Your task to perform on an android device: set default search engine in the chrome app Image 0: 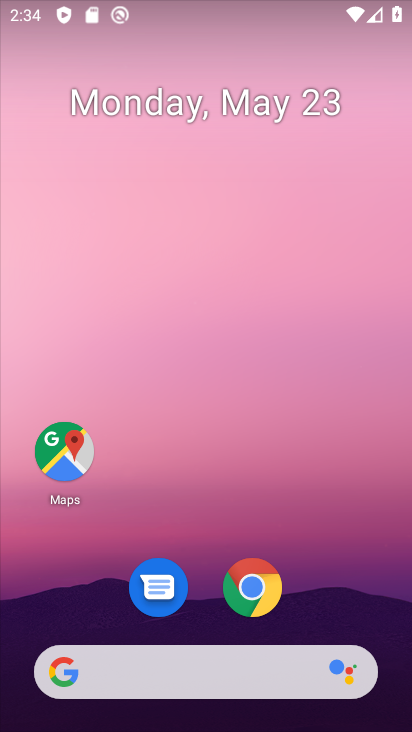
Step 0: click (255, 597)
Your task to perform on an android device: set default search engine in the chrome app Image 1: 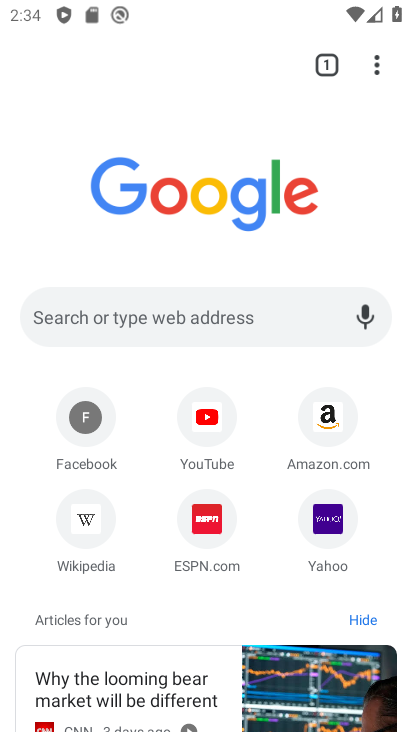
Step 1: click (383, 65)
Your task to perform on an android device: set default search engine in the chrome app Image 2: 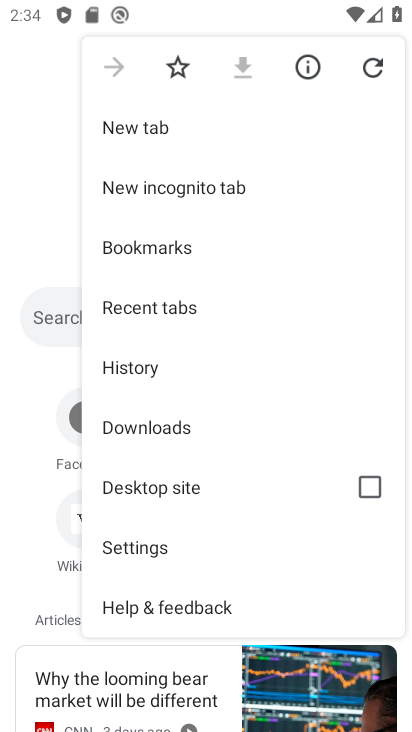
Step 2: click (144, 559)
Your task to perform on an android device: set default search engine in the chrome app Image 3: 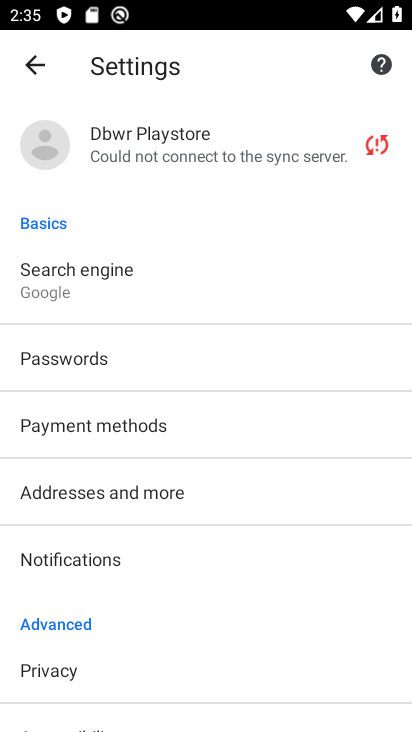
Step 3: click (115, 255)
Your task to perform on an android device: set default search engine in the chrome app Image 4: 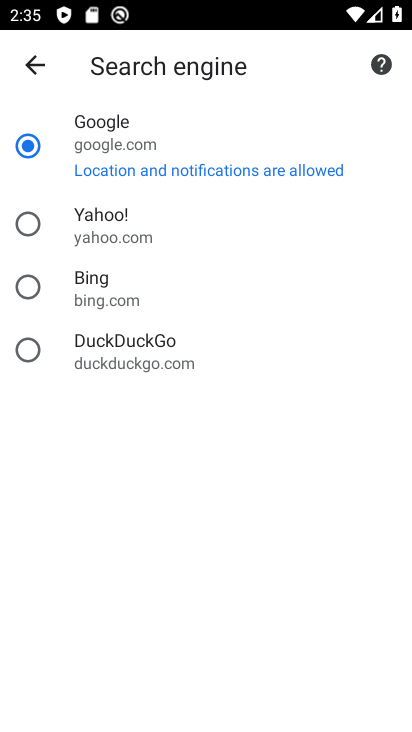
Step 4: task complete